Your task to perform on an android device: Search for hotels in NYC Image 0: 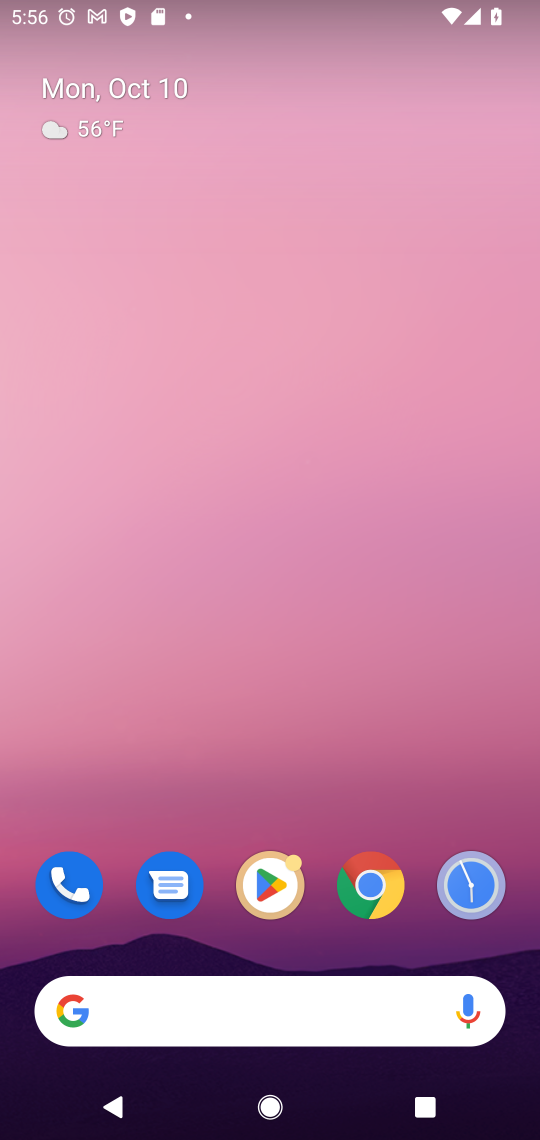
Step 0: click (285, 1022)
Your task to perform on an android device: Search for hotels in NYC Image 1: 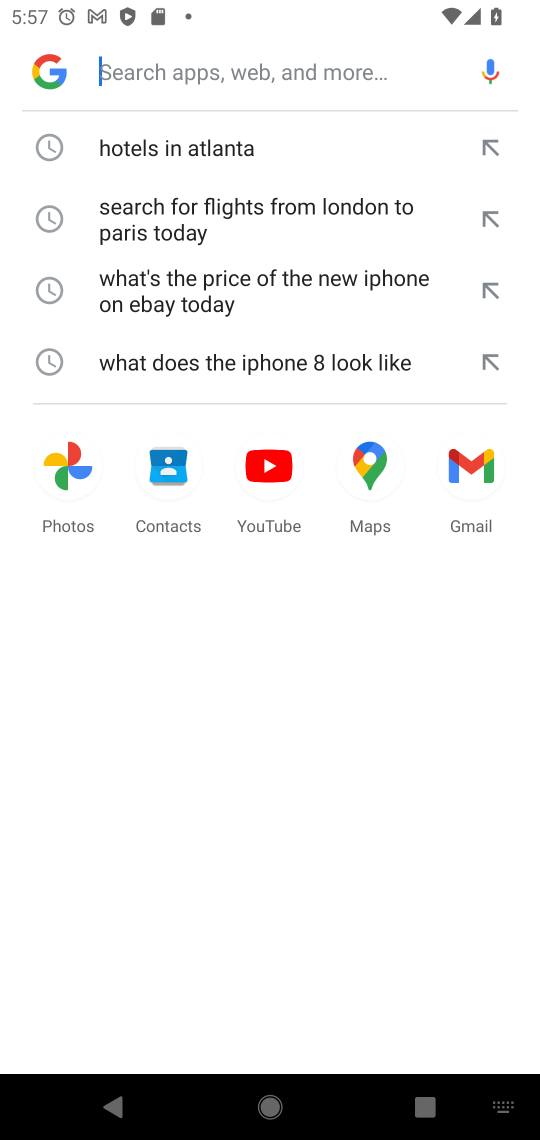
Step 1: type " hotels in NYC"
Your task to perform on an android device: Search for hotels in NYC Image 2: 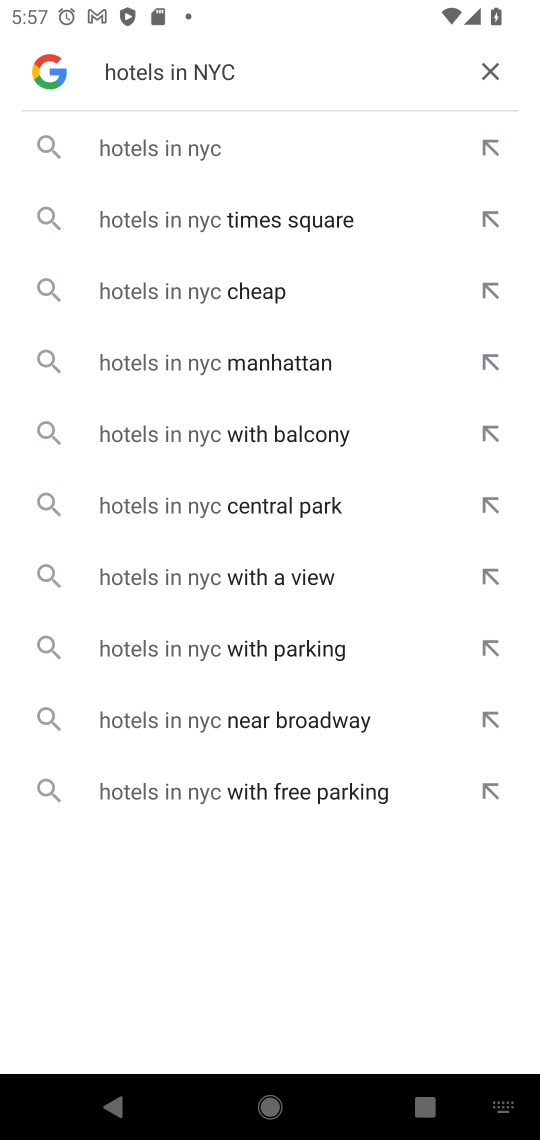
Step 2: click (156, 143)
Your task to perform on an android device: Search for hotels in NYC Image 3: 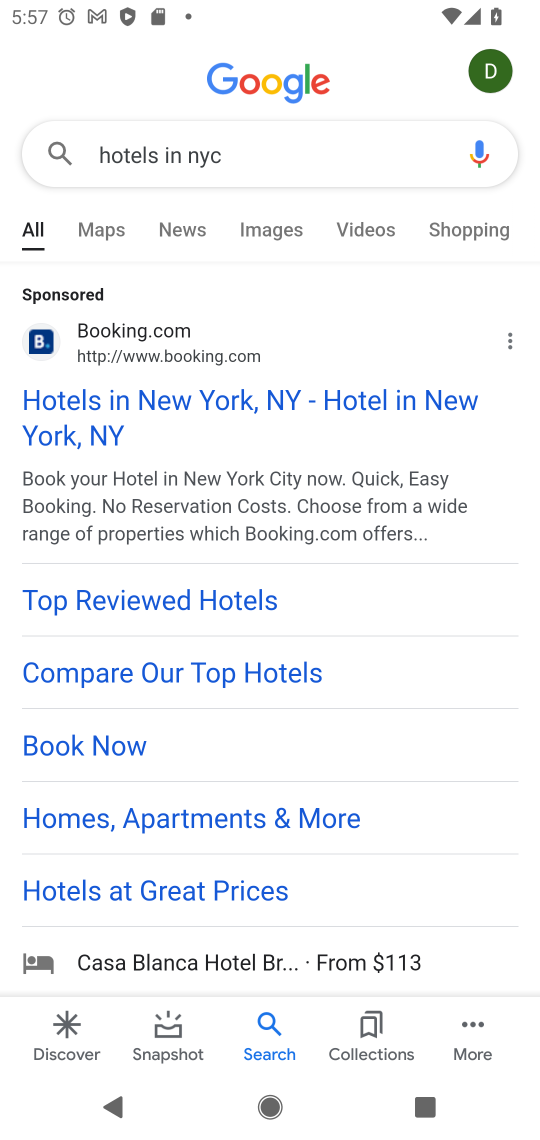
Step 3: click (195, 390)
Your task to perform on an android device: Search for hotels in NYC Image 4: 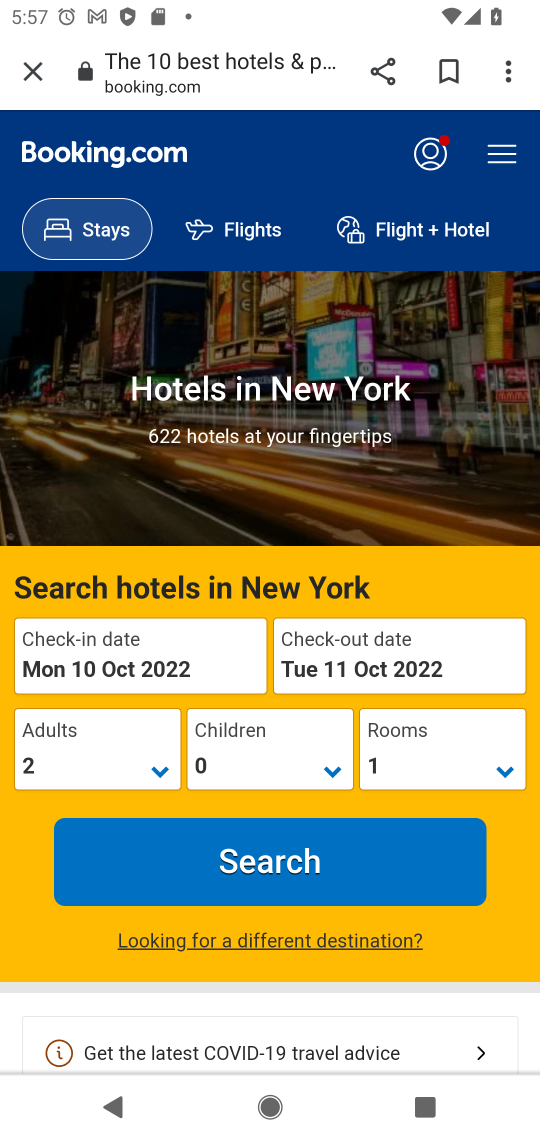
Step 4: click (280, 867)
Your task to perform on an android device: Search for hotels in NYC Image 5: 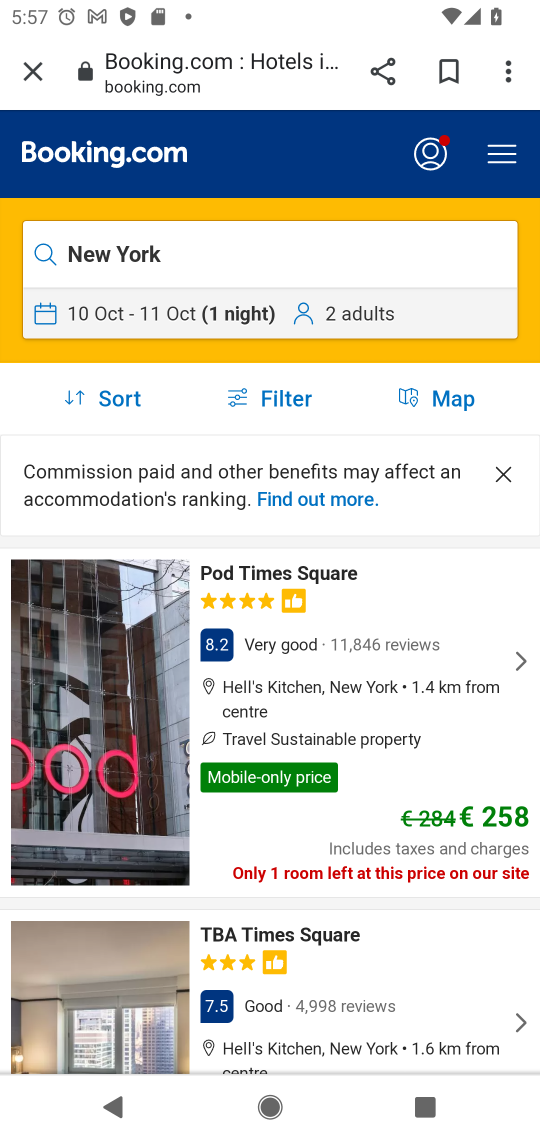
Step 5: task complete